Your task to perform on an android device: add a contact in the contacts app Image 0: 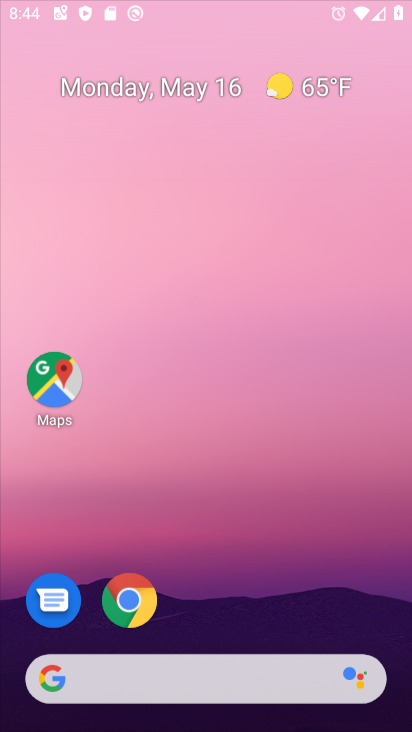
Step 0: click (232, 73)
Your task to perform on an android device: add a contact in the contacts app Image 1: 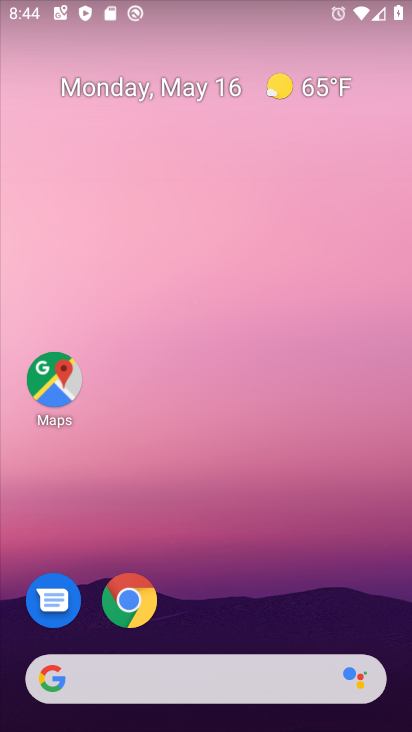
Step 1: drag from (211, 625) to (282, 155)
Your task to perform on an android device: add a contact in the contacts app Image 2: 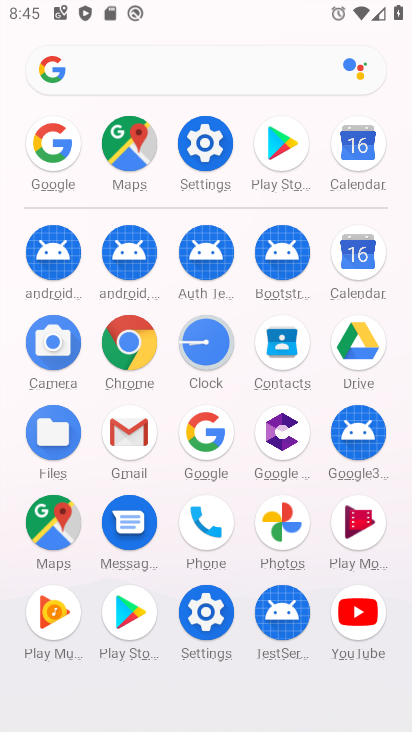
Step 2: click (283, 339)
Your task to perform on an android device: add a contact in the contacts app Image 3: 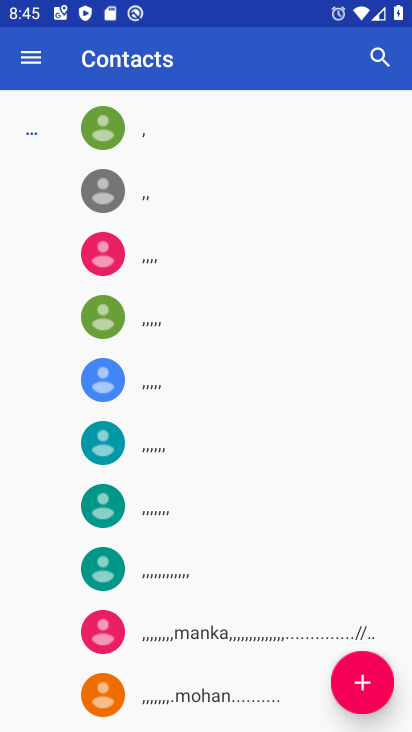
Step 3: click (363, 668)
Your task to perform on an android device: add a contact in the contacts app Image 4: 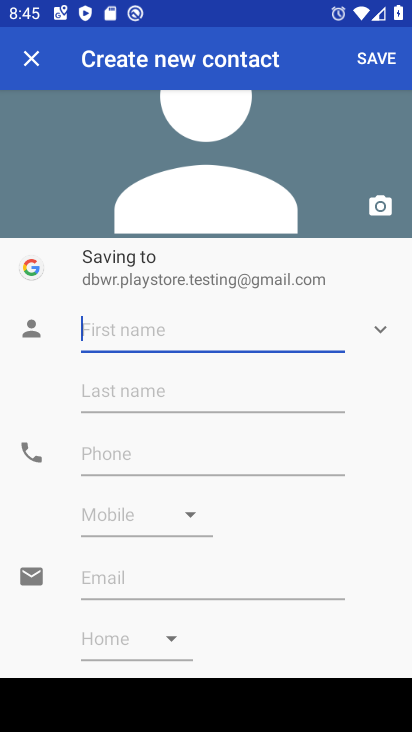
Step 4: type "mjkn"
Your task to perform on an android device: add a contact in the contacts app Image 5: 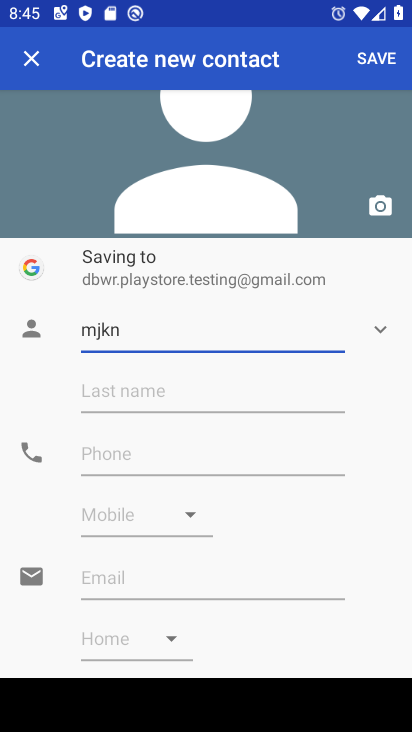
Step 5: click (364, 64)
Your task to perform on an android device: add a contact in the contacts app Image 6: 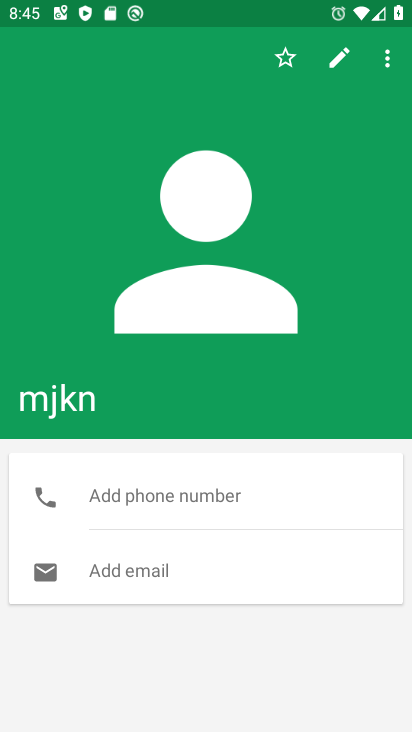
Step 6: task complete